Your task to perform on an android device: toggle wifi Image 0: 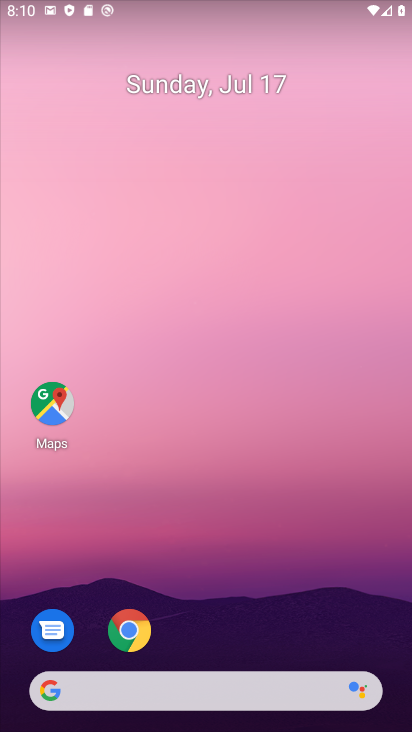
Step 0: drag from (235, 630) to (395, 383)
Your task to perform on an android device: toggle wifi Image 1: 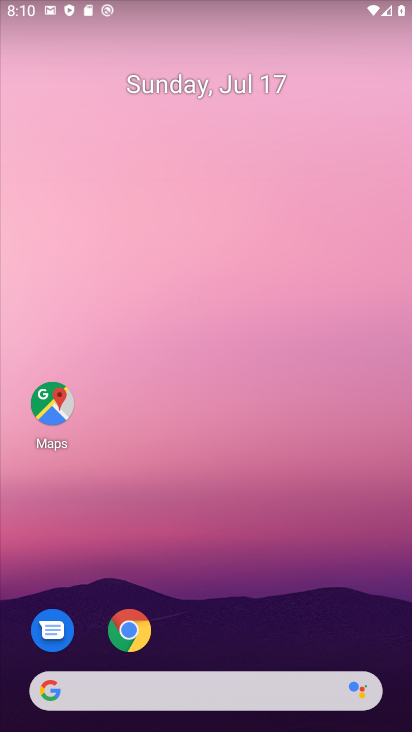
Step 1: drag from (241, 558) to (348, 35)
Your task to perform on an android device: toggle wifi Image 2: 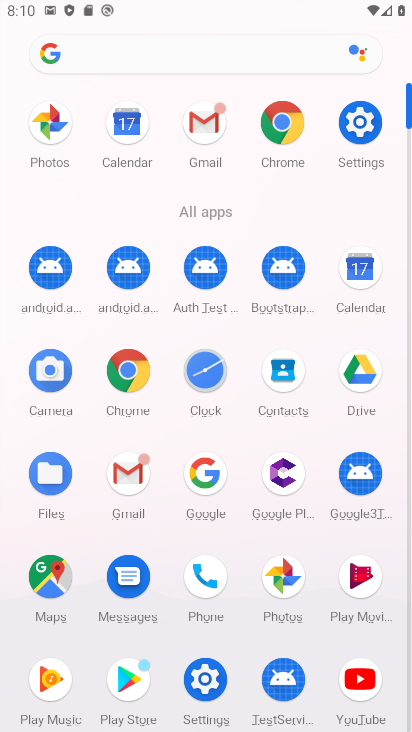
Step 2: click (363, 149)
Your task to perform on an android device: toggle wifi Image 3: 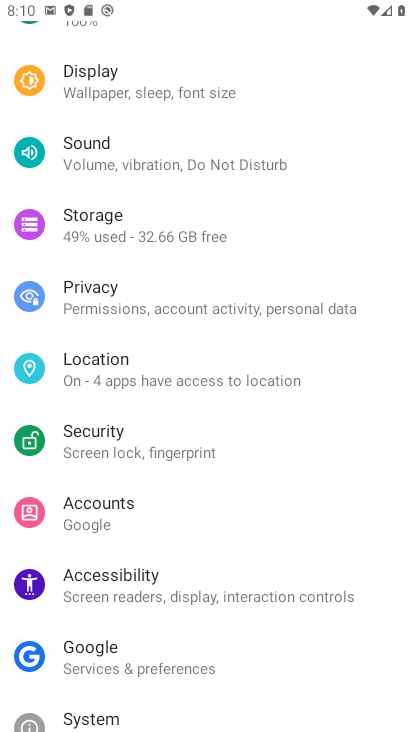
Step 3: drag from (167, 162) to (165, 447)
Your task to perform on an android device: toggle wifi Image 4: 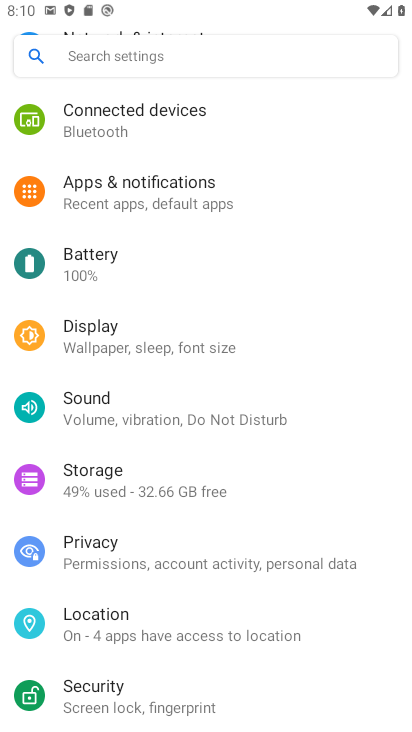
Step 4: drag from (230, 229) to (219, 723)
Your task to perform on an android device: toggle wifi Image 5: 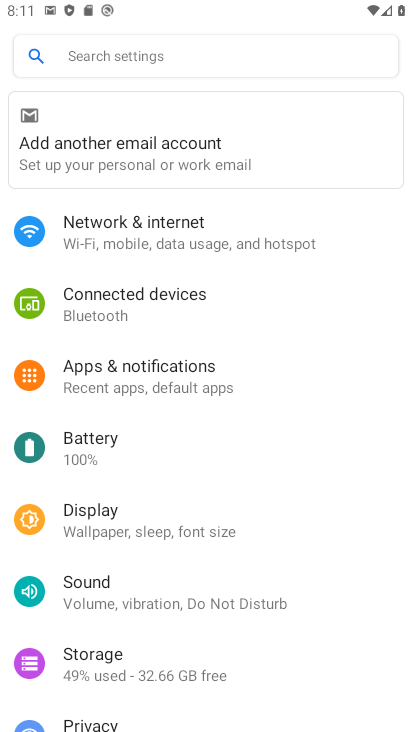
Step 5: click (238, 233)
Your task to perform on an android device: toggle wifi Image 6: 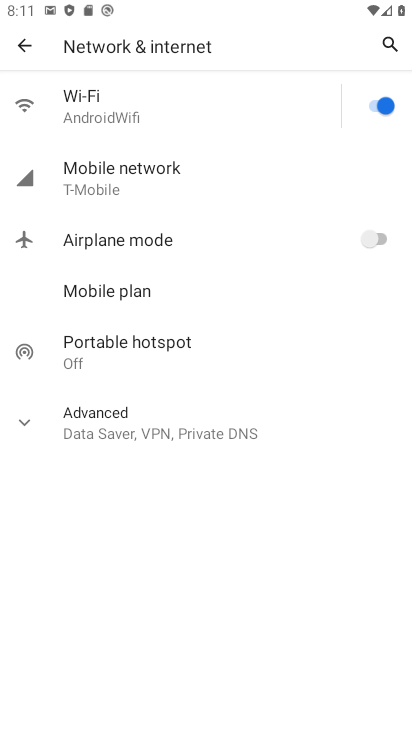
Step 6: click (364, 103)
Your task to perform on an android device: toggle wifi Image 7: 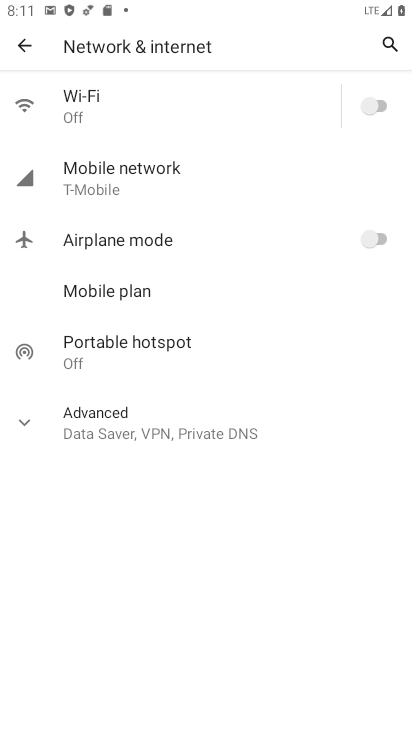
Step 7: task complete